Your task to perform on an android device: toggle pop-ups in chrome Image 0: 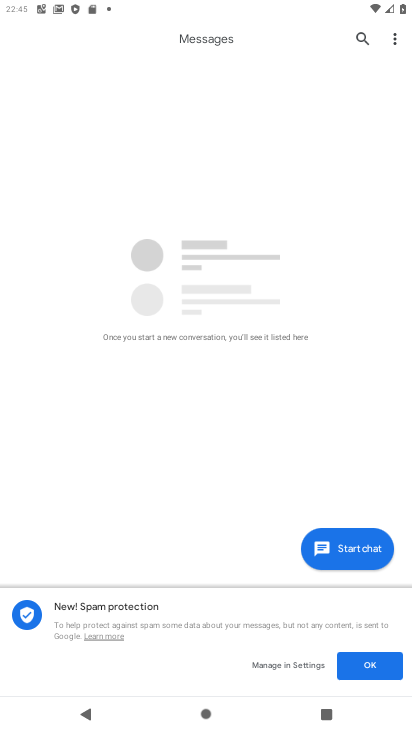
Step 0: press home button
Your task to perform on an android device: toggle pop-ups in chrome Image 1: 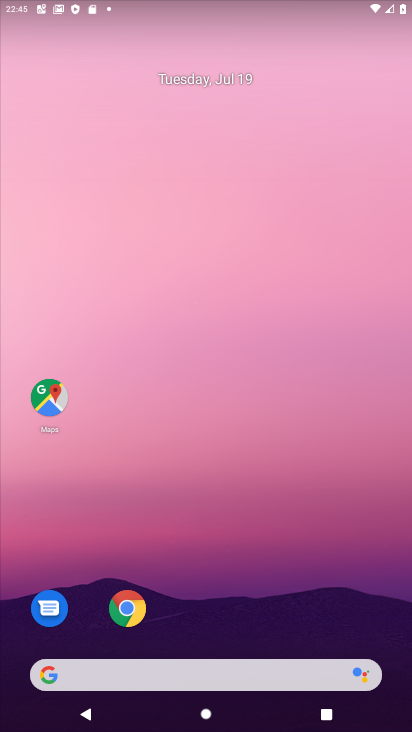
Step 1: drag from (361, 626) to (327, 171)
Your task to perform on an android device: toggle pop-ups in chrome Image 2: 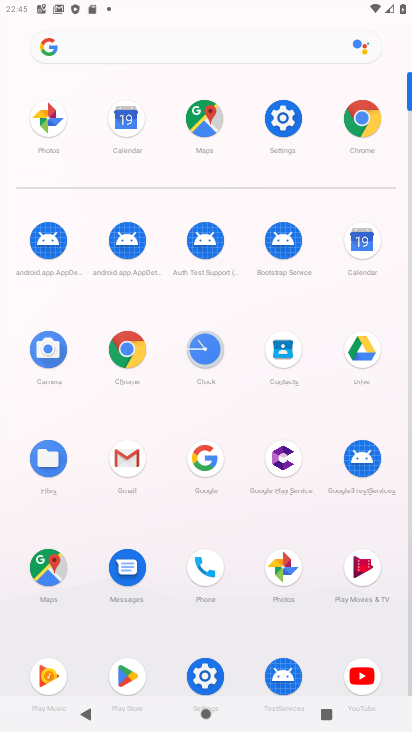
Step 2: click (360, 118)
Your task to perform on an android device: toggle pop-ups in chrome Image 3: 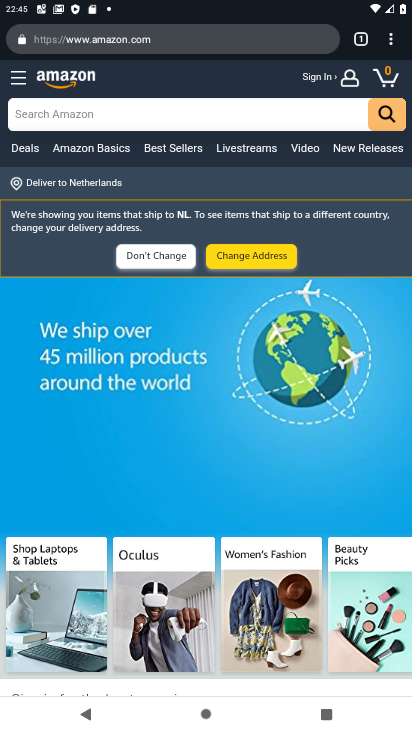
Step 3: click (392, 41)
Your task to perform on an android device: toggle pop-ups in chrome Image 4: 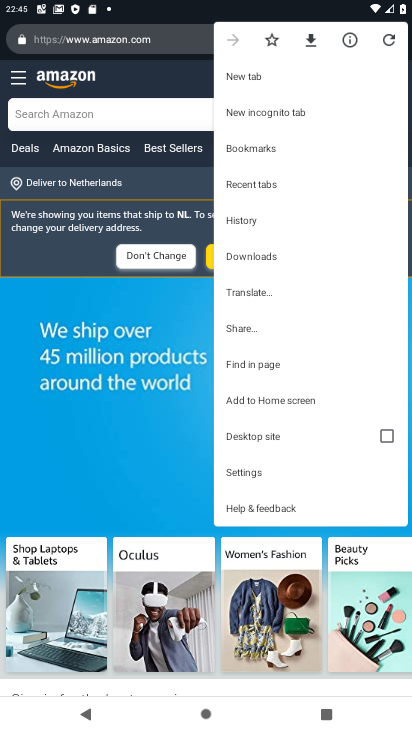
Step 4: click (271, 471)
Your task to perform on an android device: toggle pop-ups in chrome Image 5: 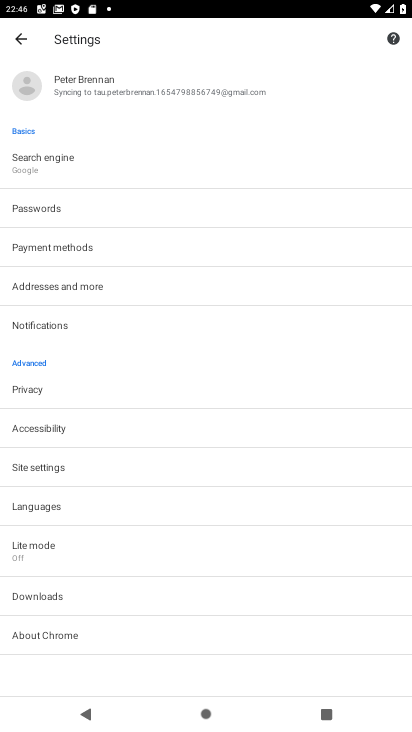
Step 5: click (55, 473)
Your task to perform on an android device: toggle pop-ups in chrome Image 6: 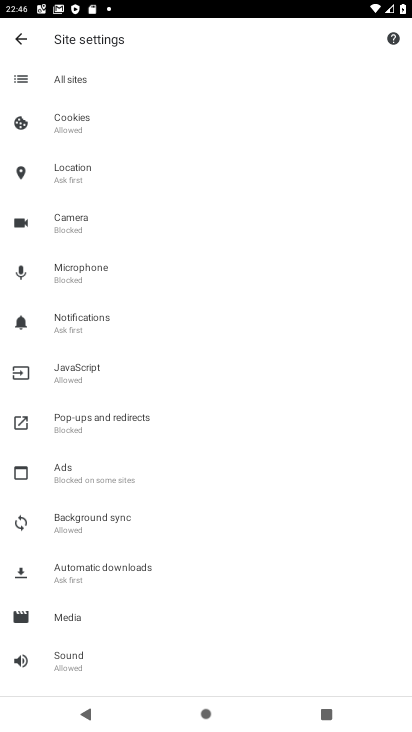
Step 6: click (84, 434)
Your task to perform on an android device: toggle pop-ups in chrome Image 7: 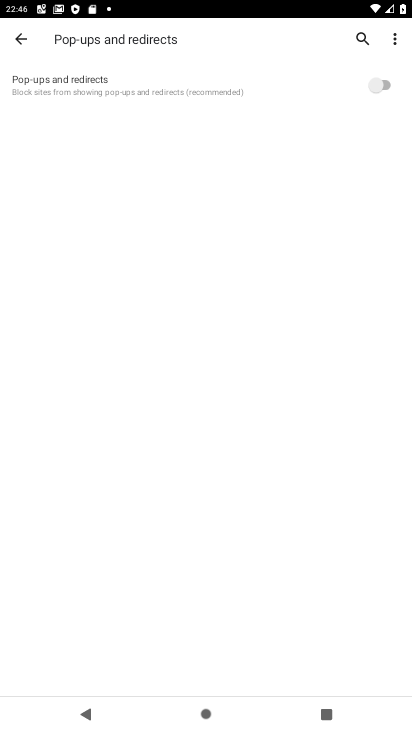
Step 7: click (359, 80)
Your task to perform on an android device: toggle pop-ups in chrome Image 8: 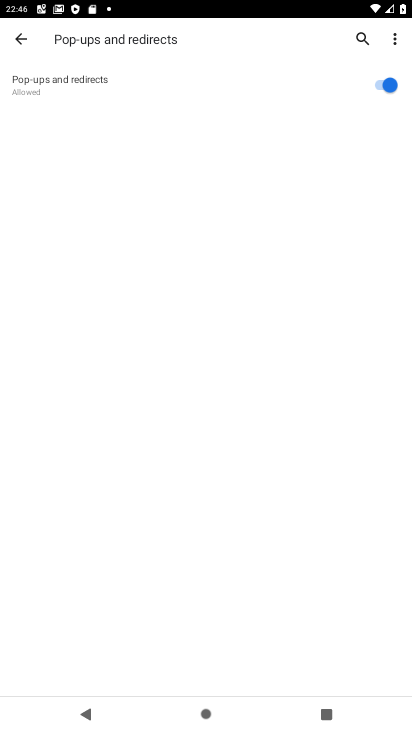
Step 8: task complete